Your task to perform on an android device: Open battery settings Image 0: 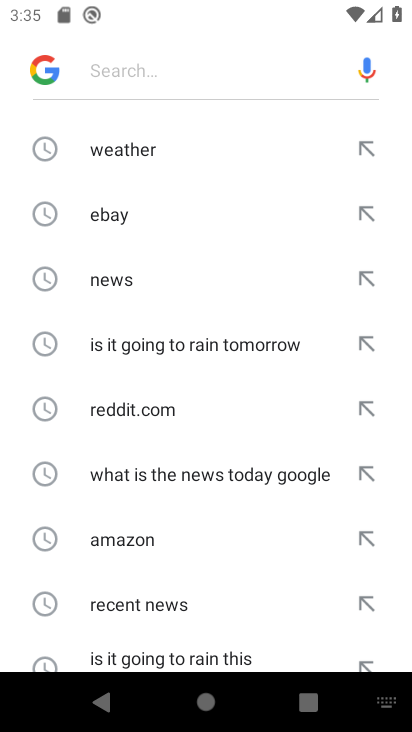
Step 0: press home button
Your task to perform on an android device: Open battery settings Image 1: 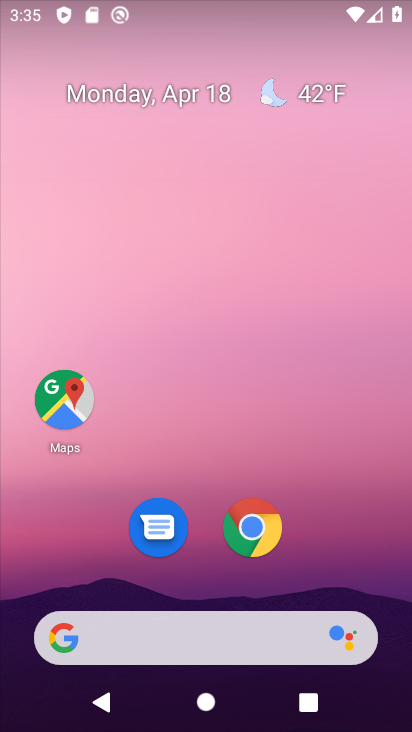
Step 1: drag from (392, 609) to (333, 78)
Your task to perform on an android device: Open battery settings Image 2: 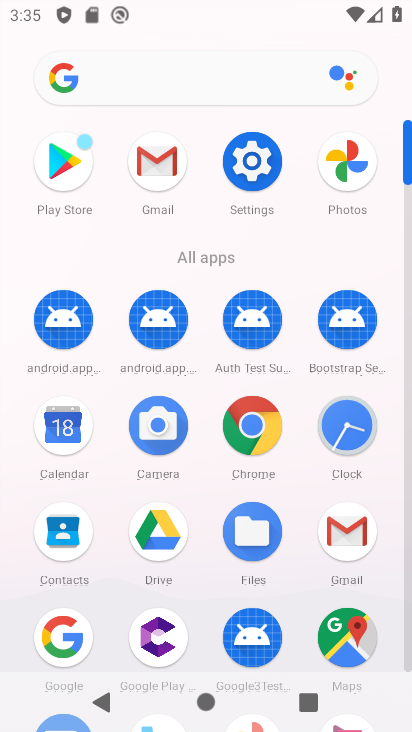
Step 2: click (406, 661)
Your task to perform on an android device: Open battery settings Image 3: 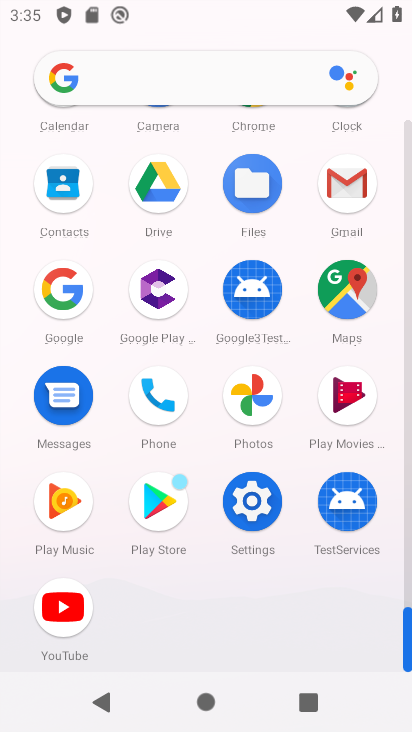
Step 3: click (255, 499)
Your task to perform on an android device: Open battery settings Image 4: 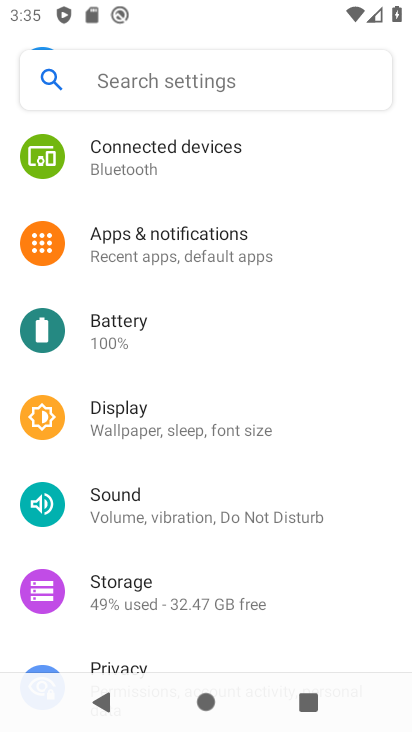
Step 4: click (95, 316)
Your task to perform on an android device: Open battery settings Image 5: 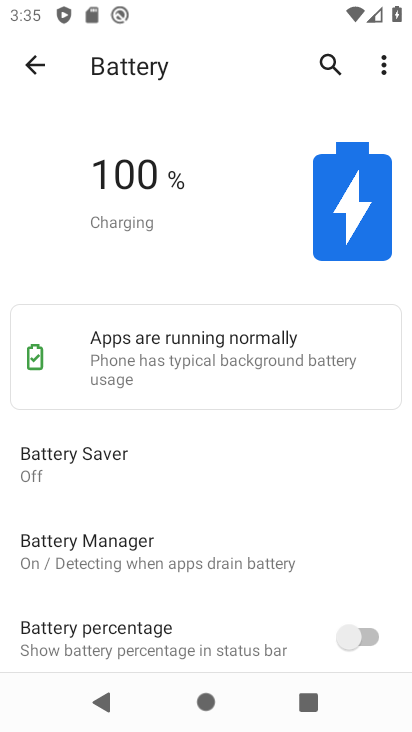
Step 5: task complete